Your task to perform on an android device: Turn off the flashlight Image 0: 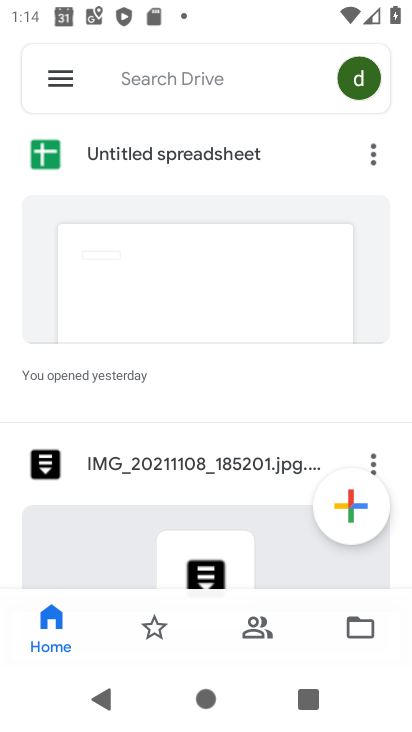
Step 0: press home button
Your task to perform on an android device: Turn off the flashlight Image 1: 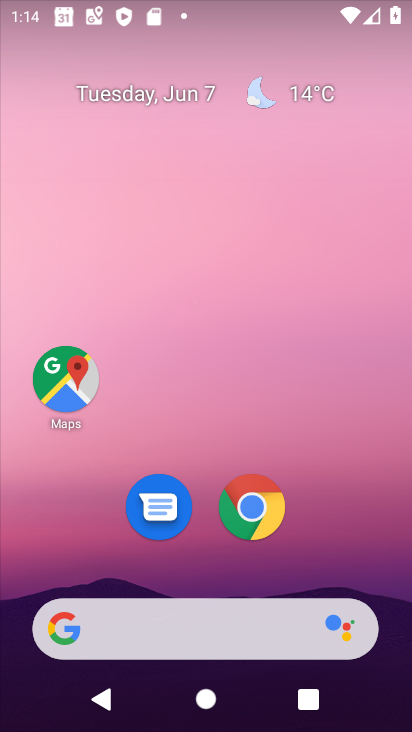
Step 1: drag from (236, 21) to (235, 372)
Your task to perform on an android device: Turn off the flashlight Image 2: 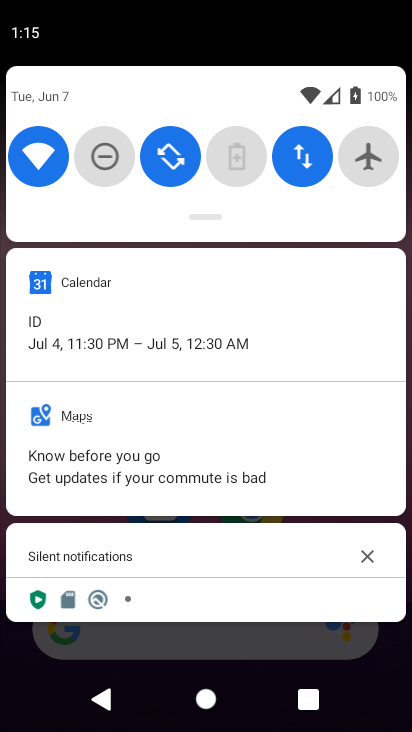
Step 2: drag from (217, 215) to (204, 463)
Your task to perform on an android device: Turn off the flashlight Image 3: 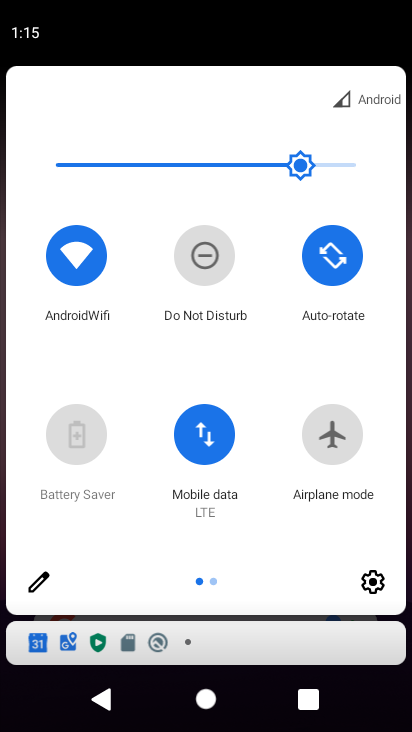
Step 3: click (42, 579)
Your task to perform on an android device: Turn off the flashlight Image 4: 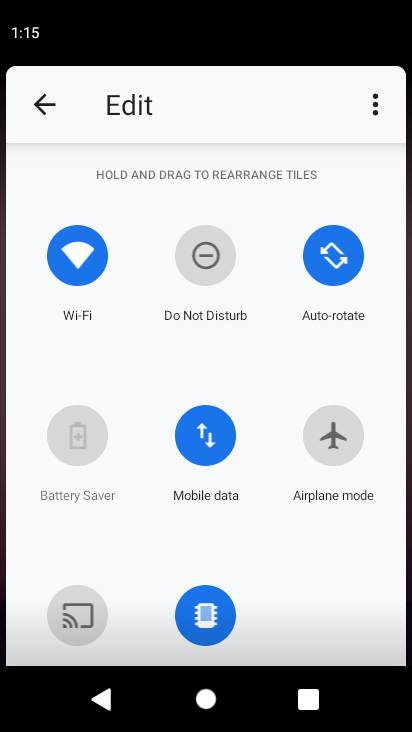
Step 4: task complete